Your task to perform on an android device: uninstall "Indeed Job Search" Image 0: 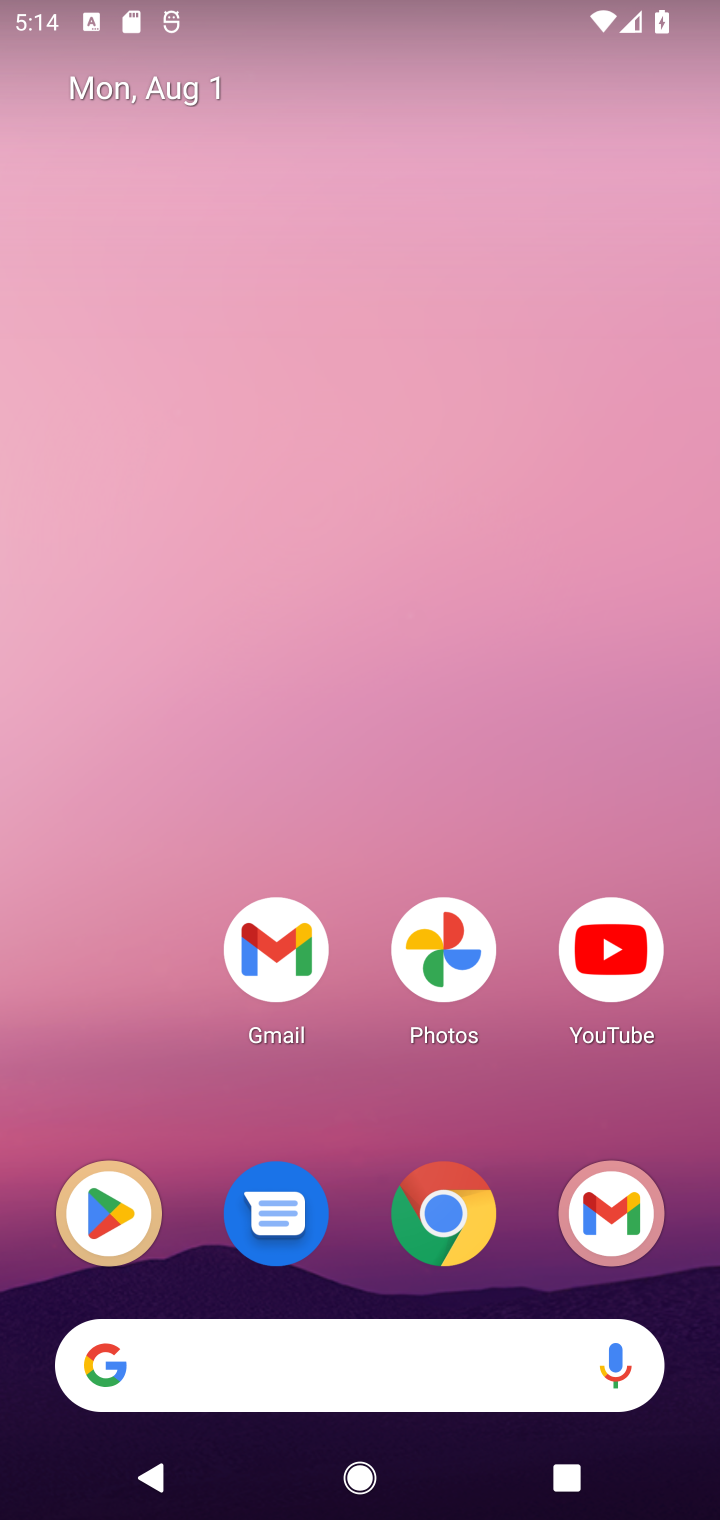
Step 0: drag from (463, 883) to (431, 118)
Your task to perform on an android device: uninstall "Indeed Job Search" Image 1: 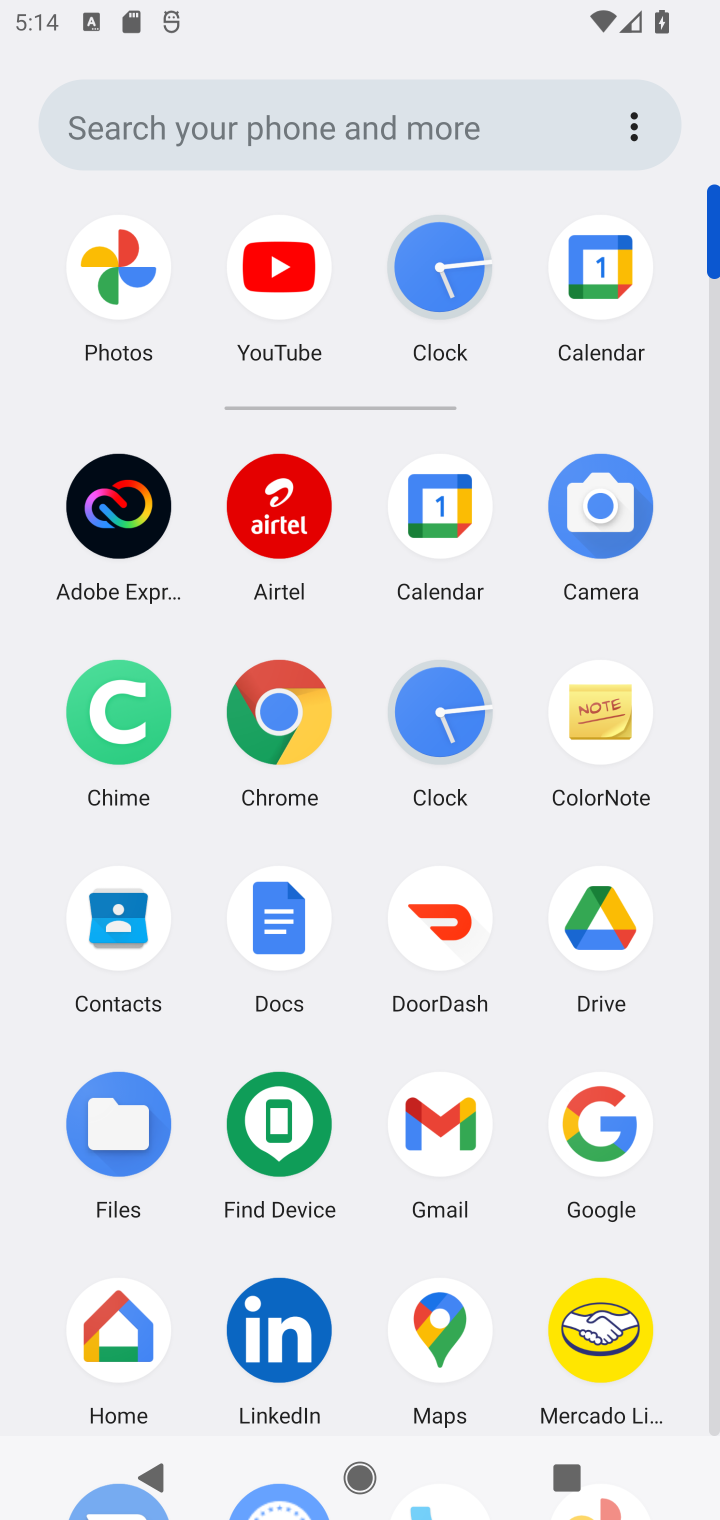
Step 1: drag from (367, 1242) to (328, 457)
Your task to perform on an android device: uninstall "Indeed Job Search" Image 2: 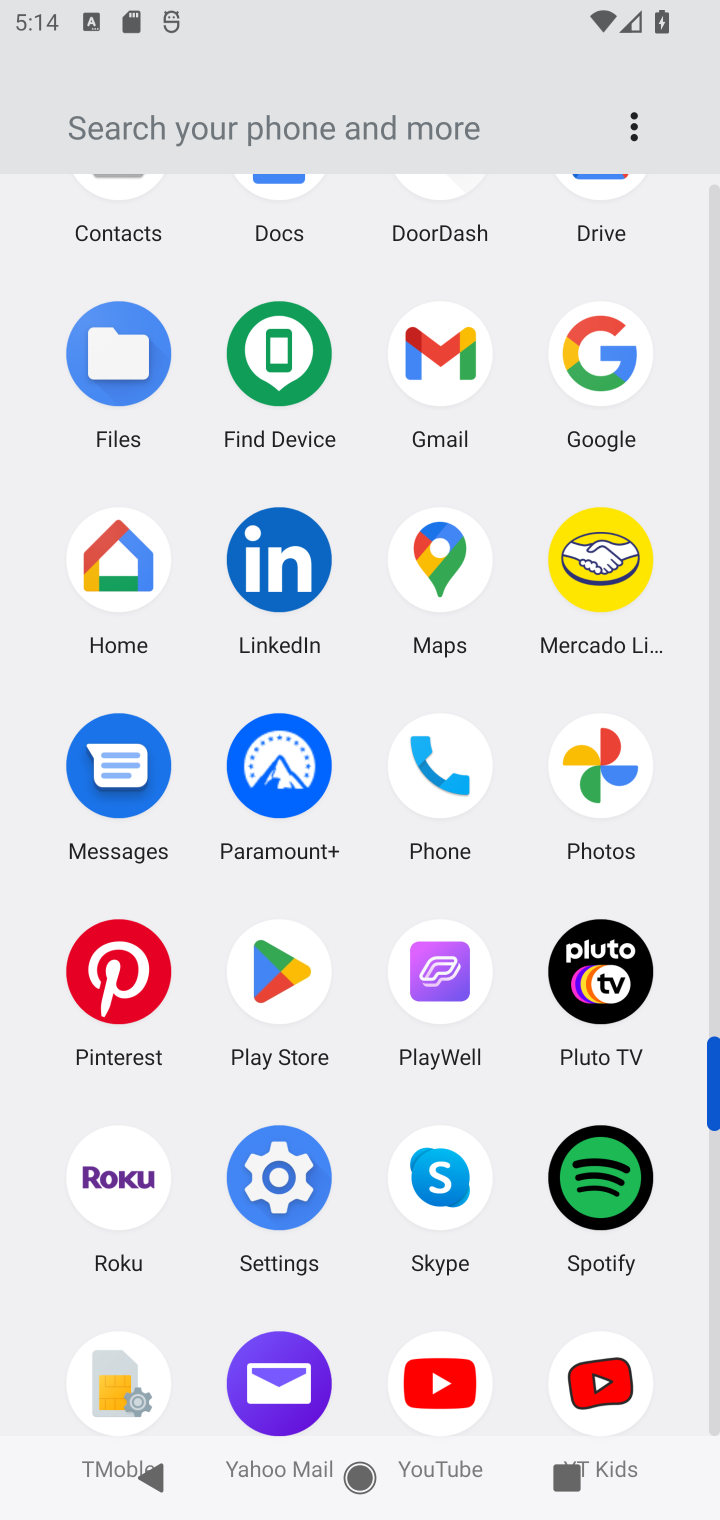
Step 2: click (288, 984)
Your task to perform on an android device: uninstall "Indeed Job Search" Image 3: 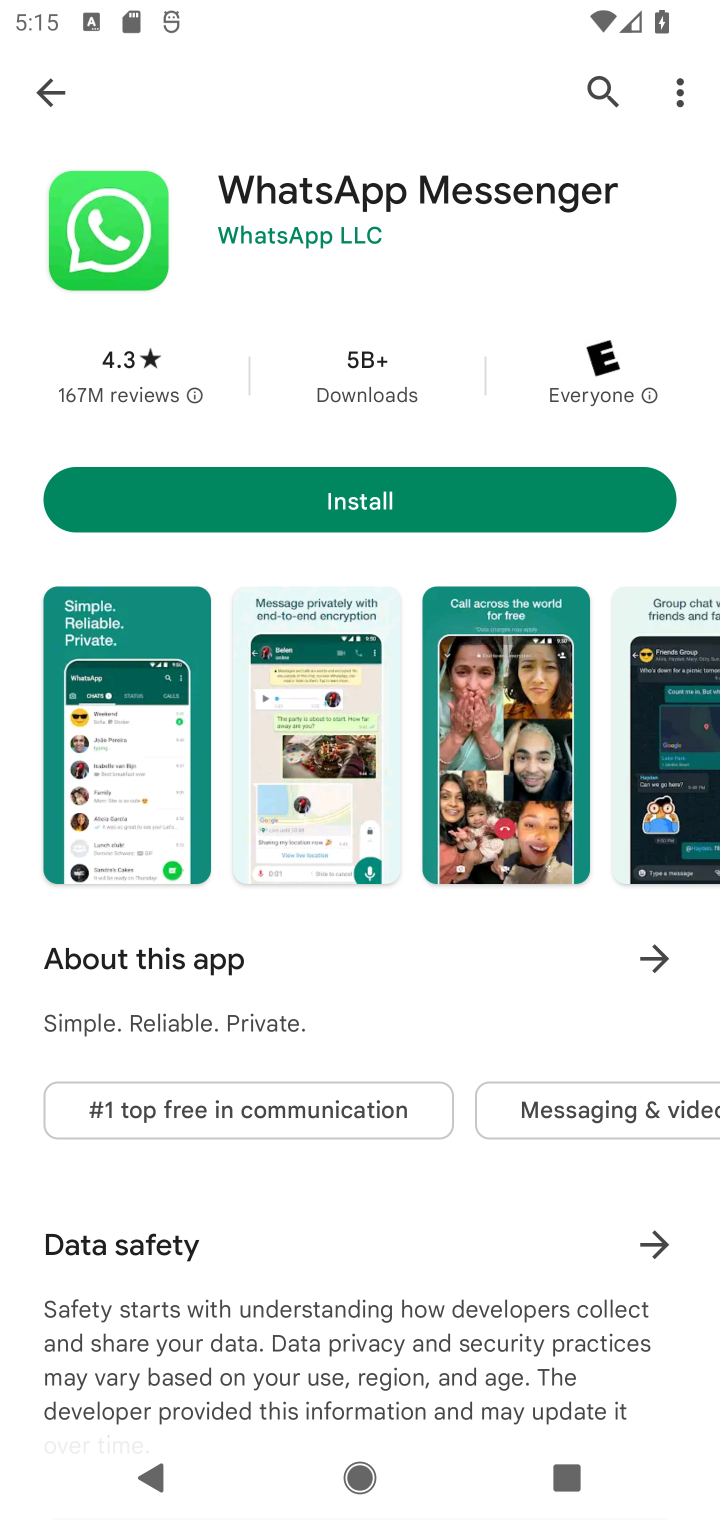
Step 3: click (604, 91)
Your task to perform on an android device: uninstall "Indeed Job Search" Image 4: 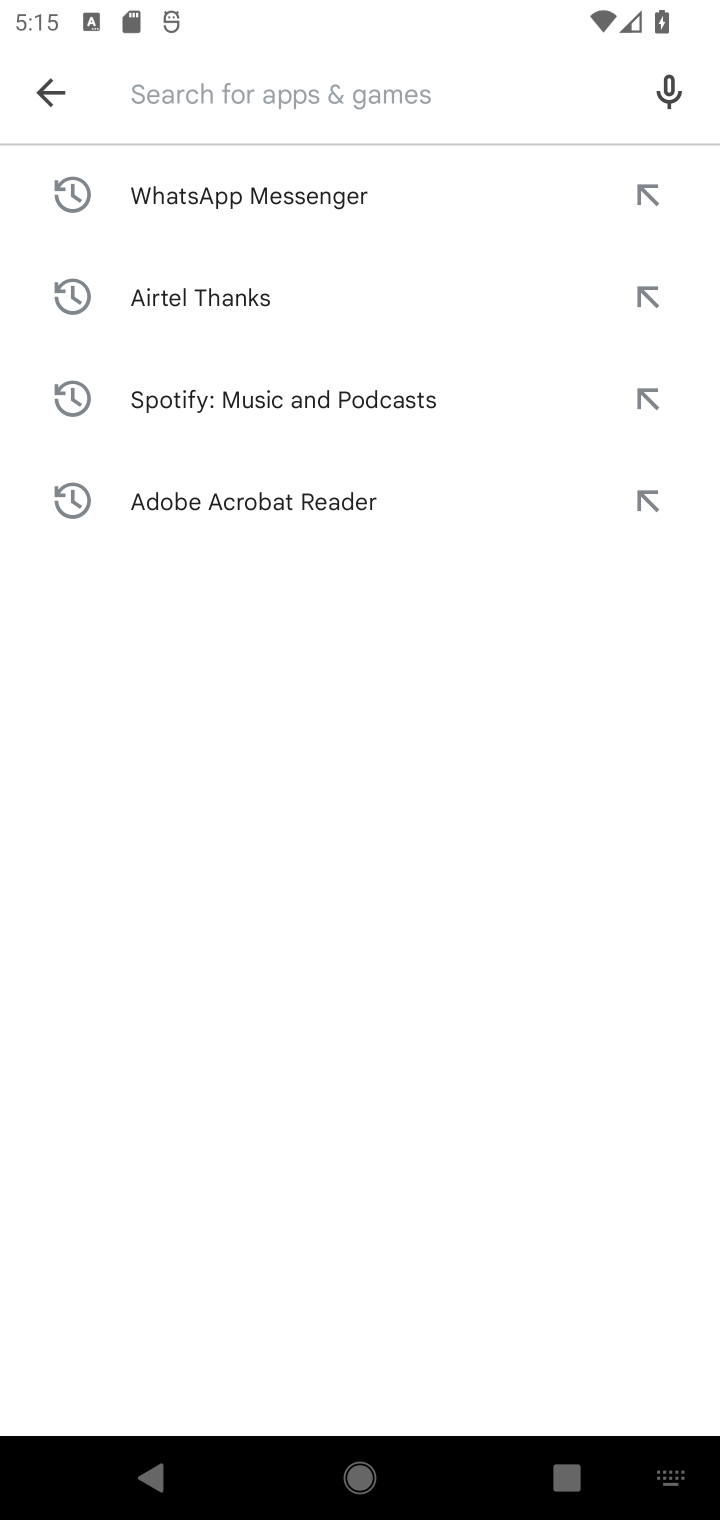
Step 4: type "Indeed Job Search"
Your task to perform on an android device: uninstall "Indeed Job Search" Image 5: 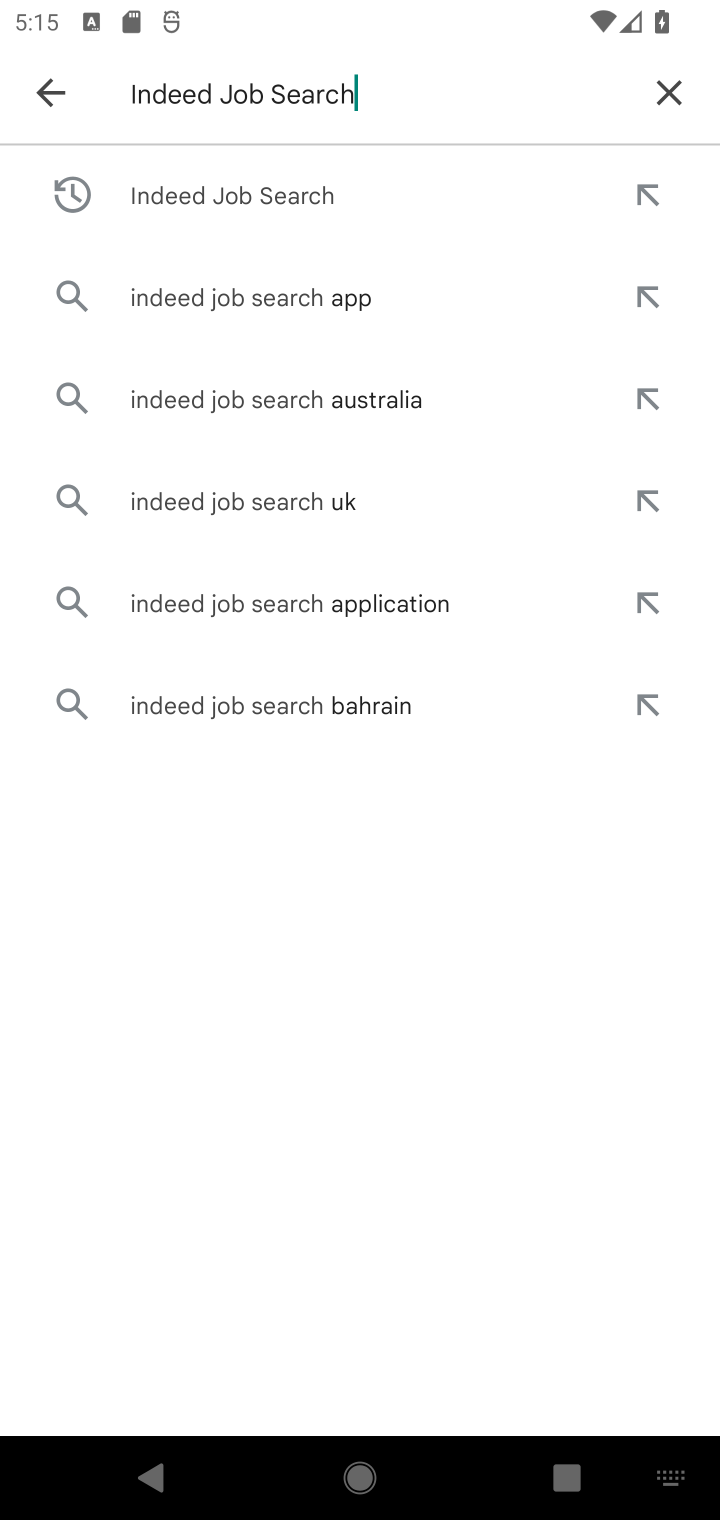
Step 5: press enter
Your task to perform on an android device: uninstall "Indeed Job Search" Image 6: 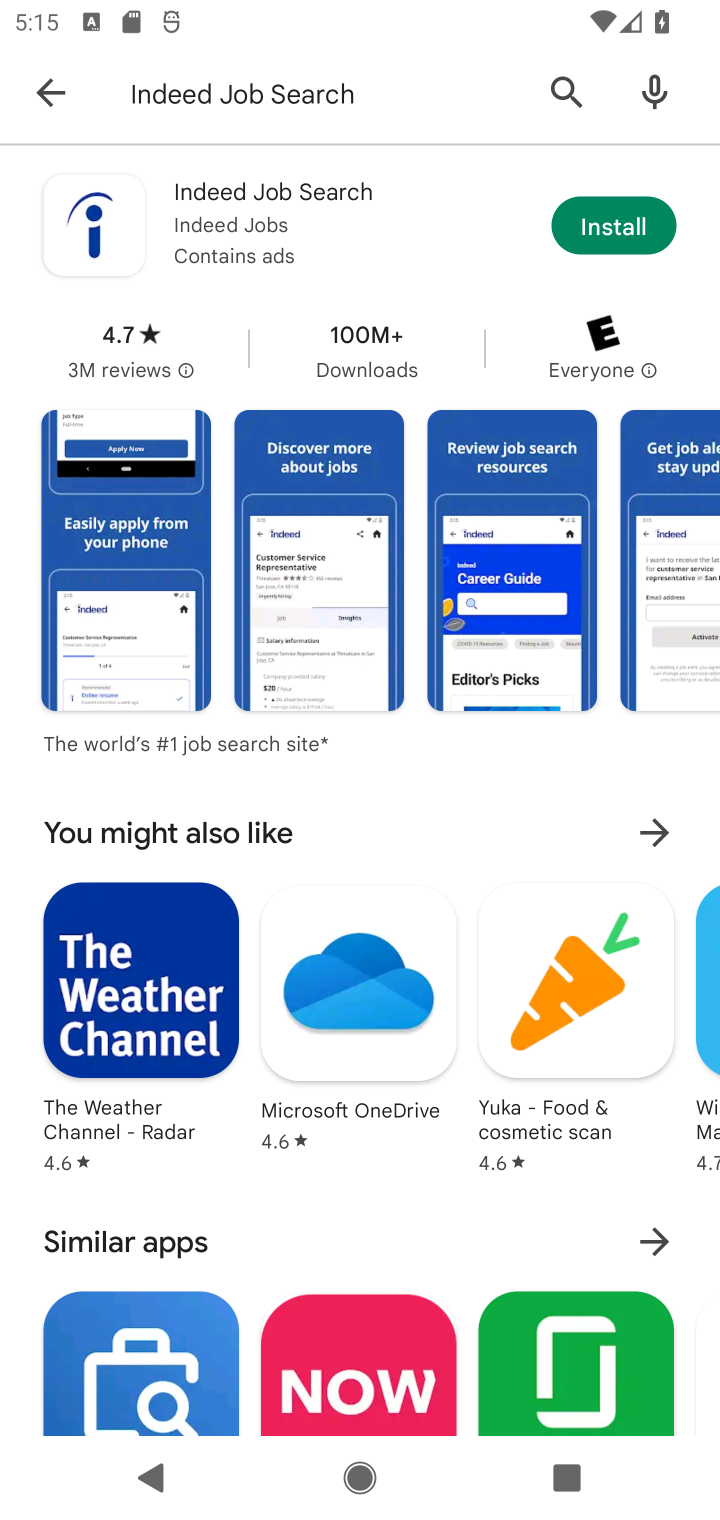
Step 6: task complete